Your task to perform on an android device: Open battery settings Image 0: 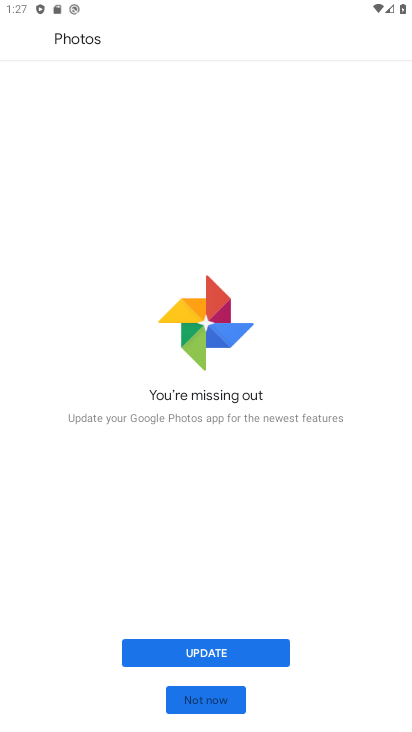
Step 0: click (221, 700)
Your task to perform on an android device: Open battery settings Image 1: 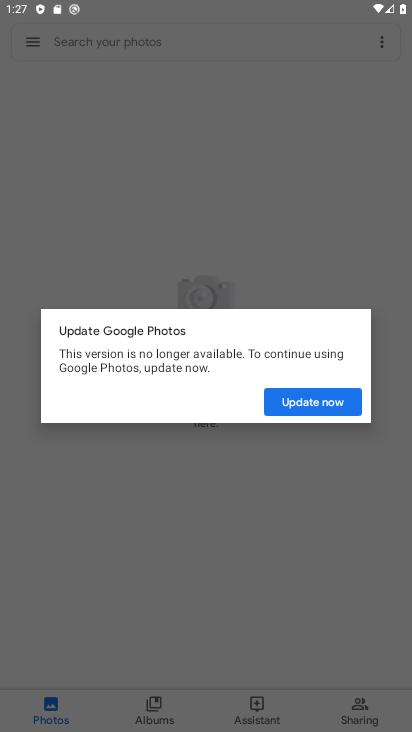
Step 1: press home button
Your task to perform on an android device: Open battery settings Image 2: 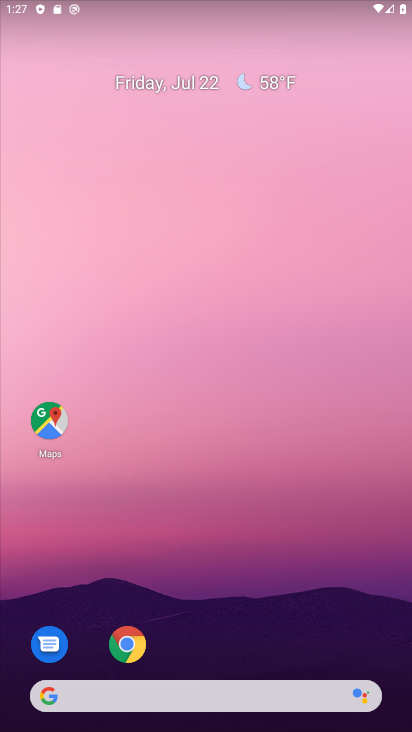
Step 2: drag from (208, 658) to (206, 181)
Your task to perform on an android device: Open battery settings Image 3: 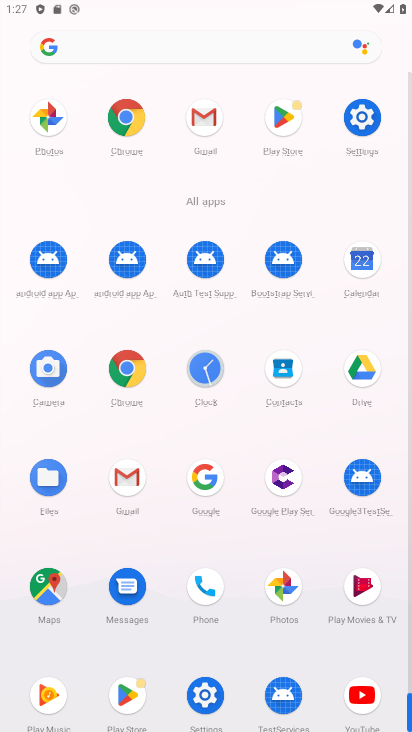
Step 3: click (353, 122)
Your task to perform on an android device: Open battery settings Image 4: 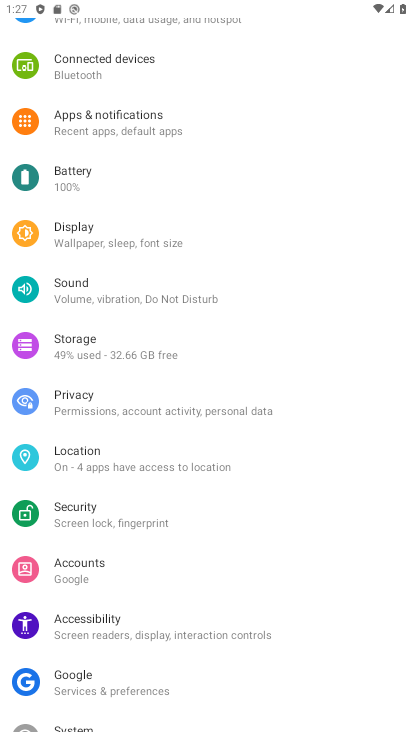
Step 4: click (84, 180)
Your task to perform on an android device: Open battery settings Image 5: 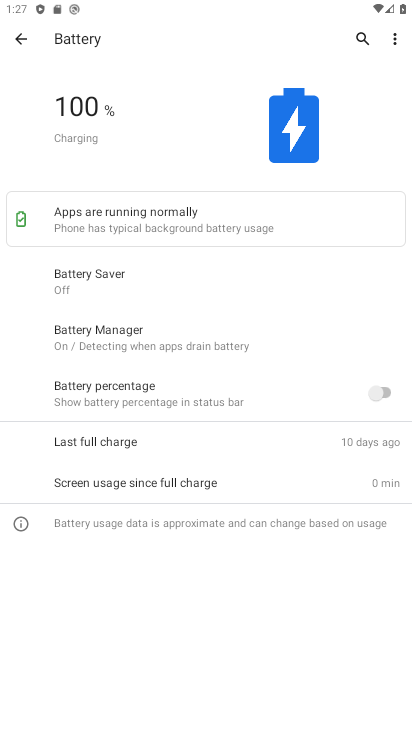
Step 5: click (389, 41)
Your task to perform on an android device: Open battery settings Image 6: 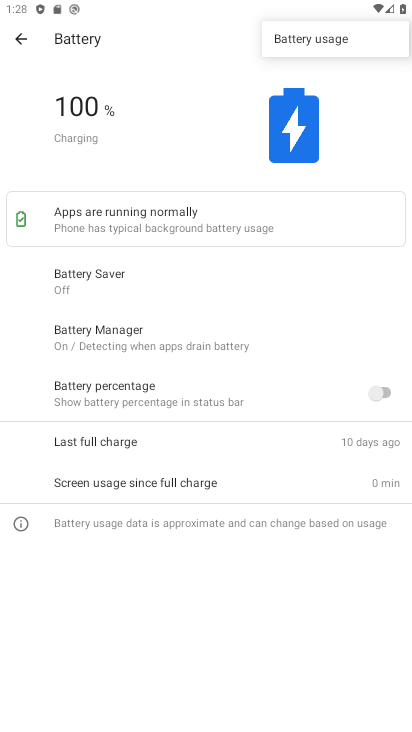
Step 6: click (309, 40)
Your task to perform on an android device: Open battery settings Image 7: 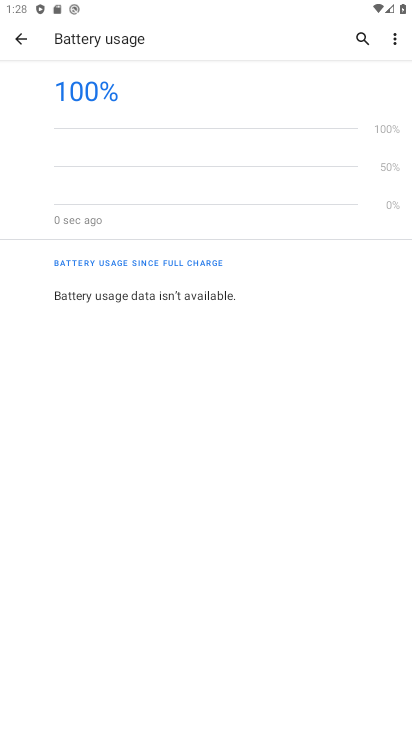
Step 7: task complete